Your task to perform on an android device: delete location history Image 0: 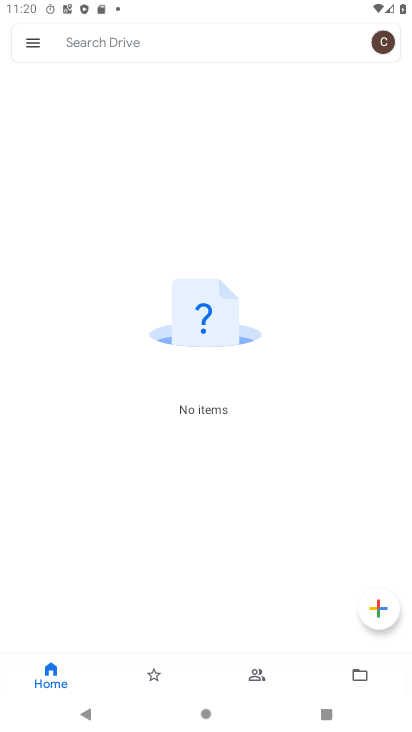
Step 0: press home button
Your task to perform on an android device: delete location history Image 1: 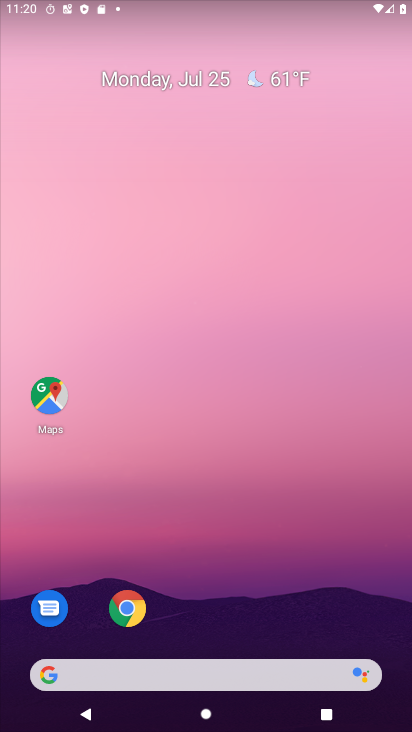
Step 1: drag from (267, 561) to (226, 0)
Your task to perform on an android device: delete location history Image 2: 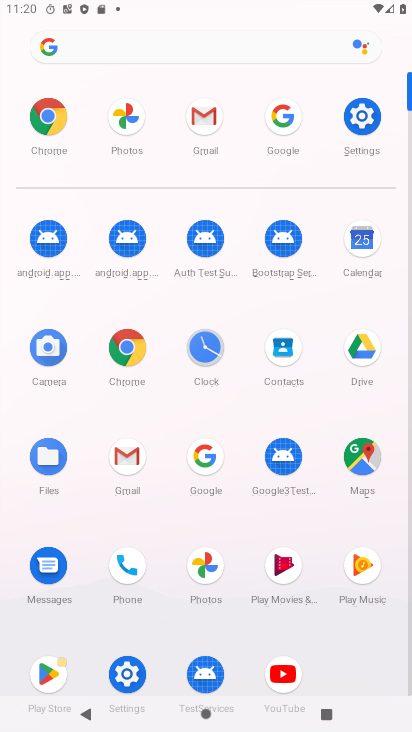
Step 2: click (362, 459)
Your task to perform on an android device: delete location history Image 3: 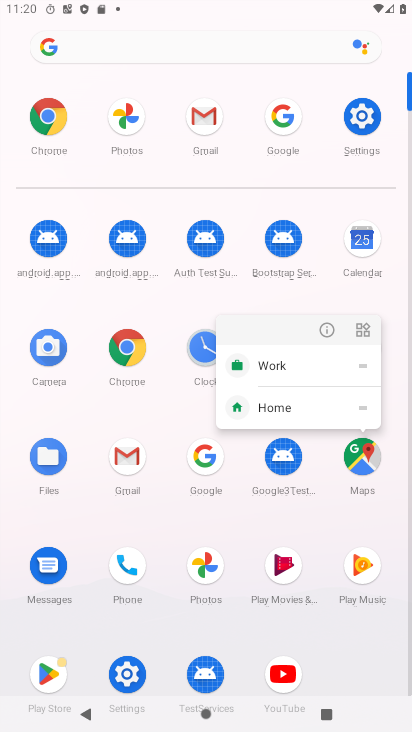
Step 3: click (356, 463)
Your task to perform on an android device: delete location history Image 4: 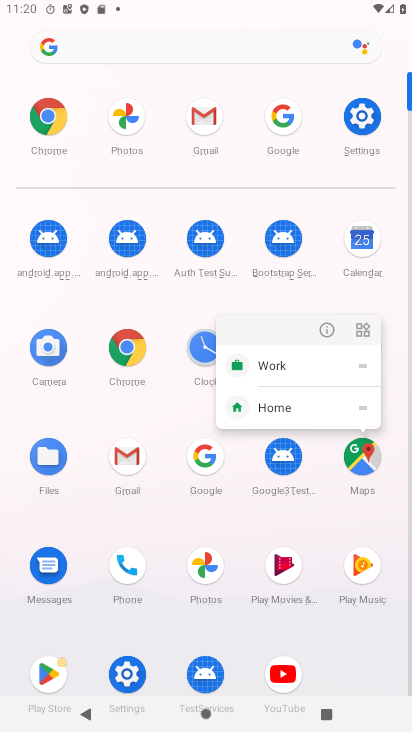
Step 4: click (356, 463)
Your task to perform on an android device: delete location history Image 5: 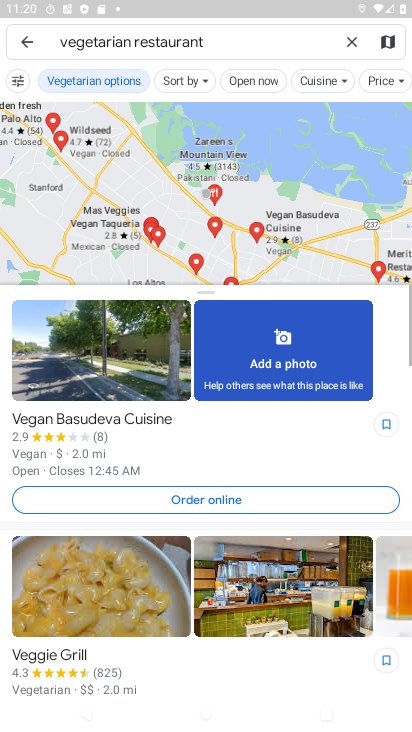
Step 5: click (21, 39)
Your task to perform on an android device: delete location history Image 6: 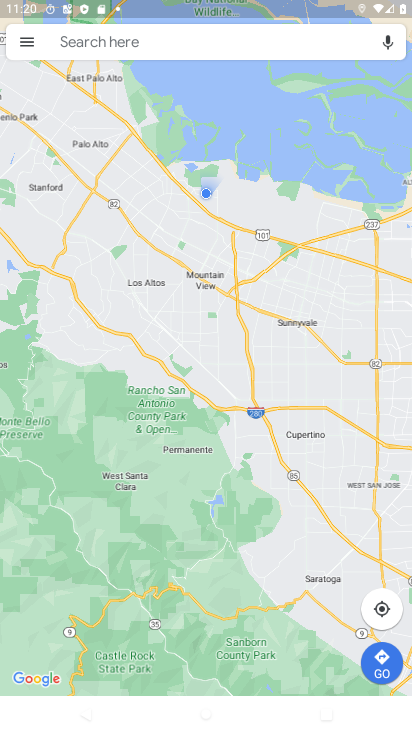
Step 6: click (28, 38)
Your task to perform on an android device: delete location history Image 7: 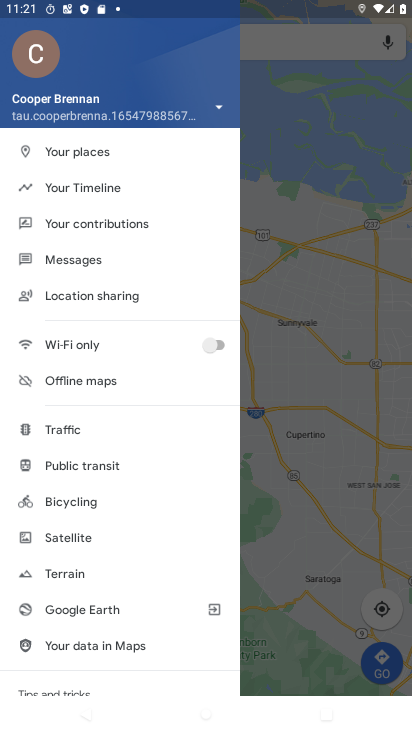
Step 7: drag from (113, 535) to (105, 239)
Your task to perform on an android device: delete location history Image 8: 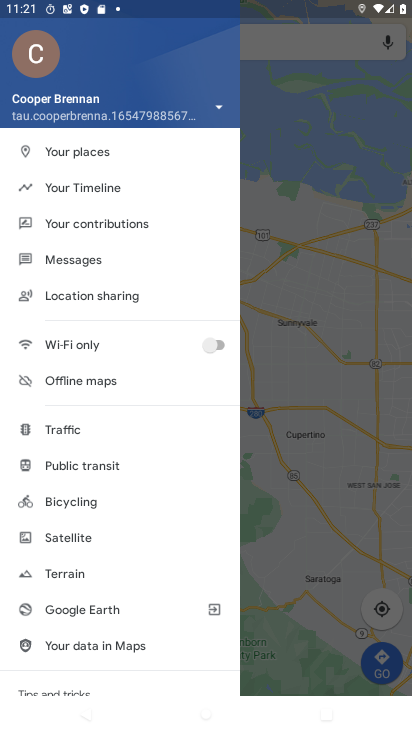
Step 8: click (91, 193)
Your task to perform on an android device: delete location history Image 9: 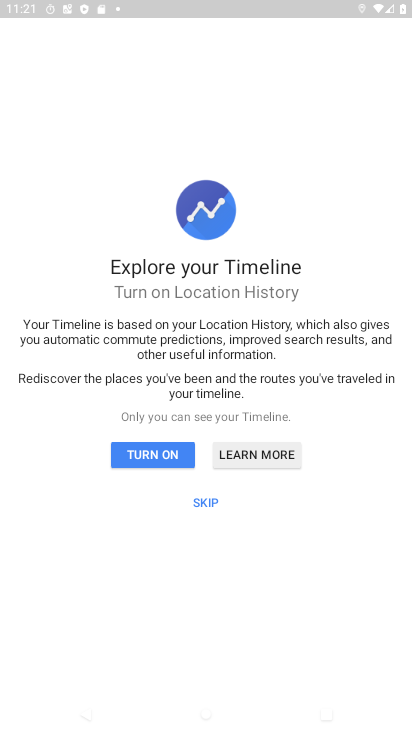
Step 9: click (198, 505)
Your task to perform on an android device: delete location history Image 10: 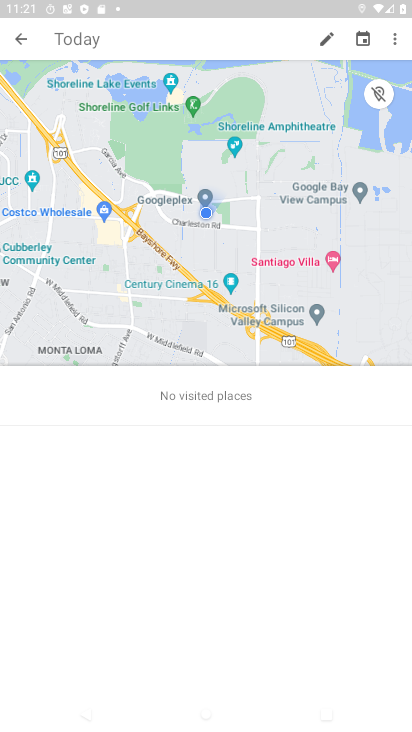
Step 10: click (395, 40)
Your task to perform on an android device: delete location history Image 11: 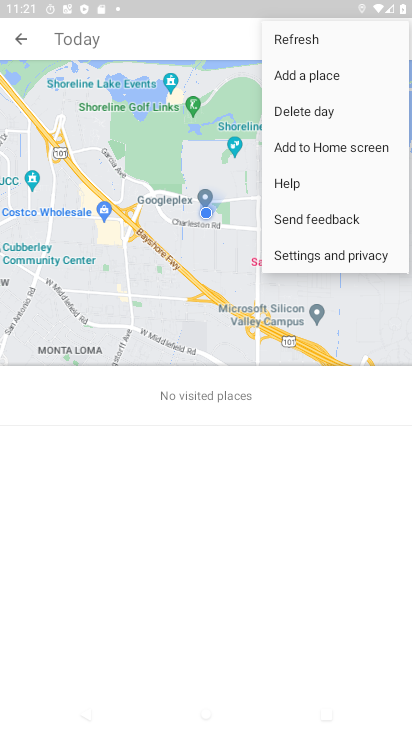
Step 11: click (320, 267)
Your task to perform on an android device: delete location history Image 12: 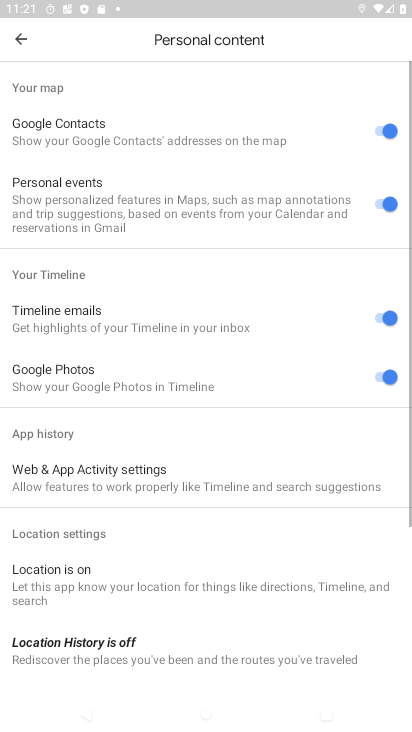
Step 12: drag from (148, 638) to (183, 87)
Your task to perform on an android device: delete location history Image 13: 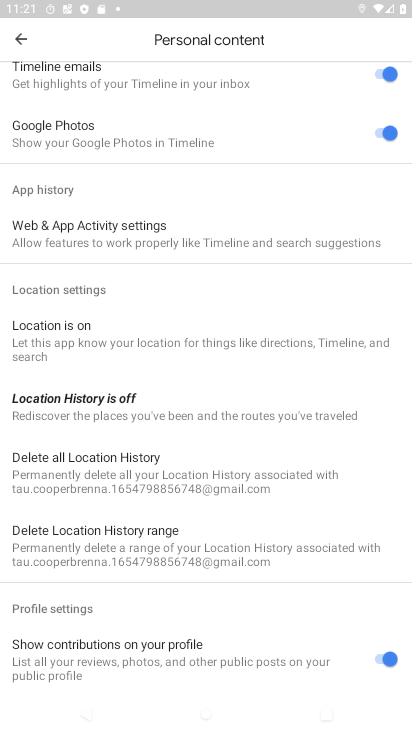
Step 13: click (114, 469)
Your task to perform on an android device: delete location history Image 14: 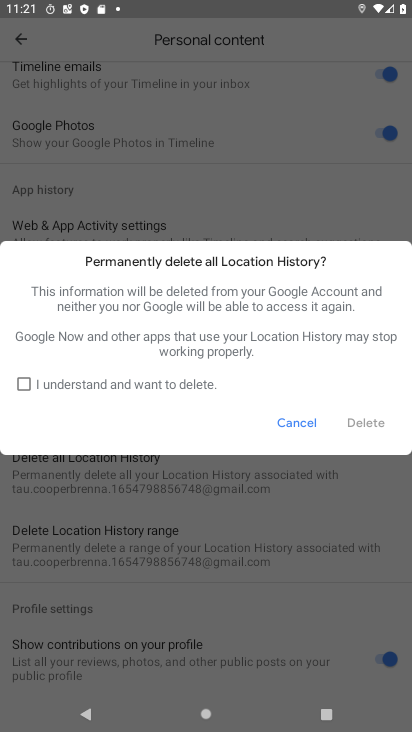
Step 14: click (23, 384)
Your task to perform on an android device: delete location history Image 15: 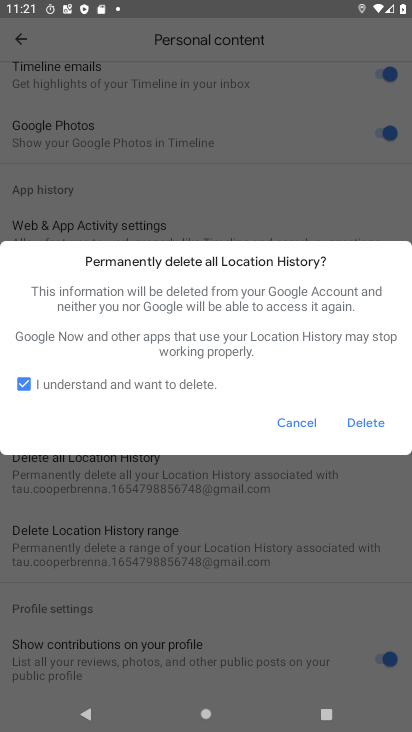
Step 15: click (365, 417)
Your task to perform on an android device: delete location history Image 16: 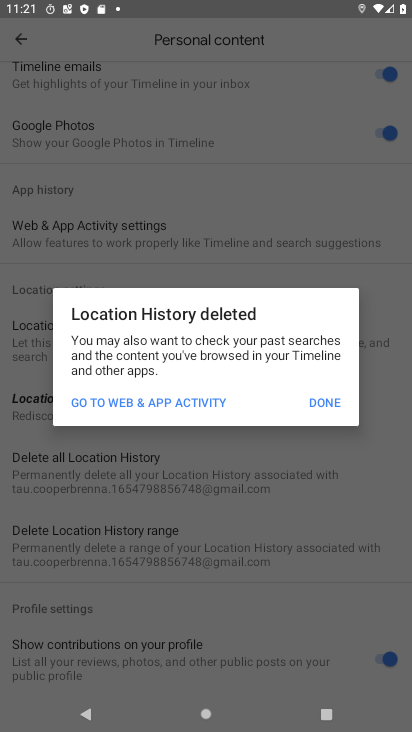
Step 16: click (326, 409)
Your task to perform on an android device: delete location history Image 17: 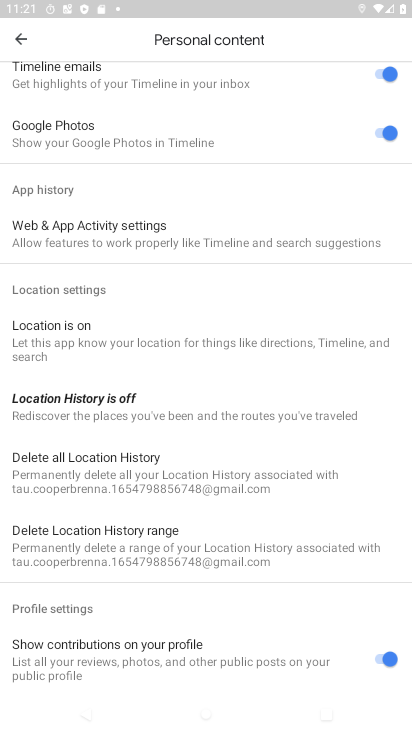
Step 17: task complete